Your task to perform on an android device: Do I have any events today? Image 0: 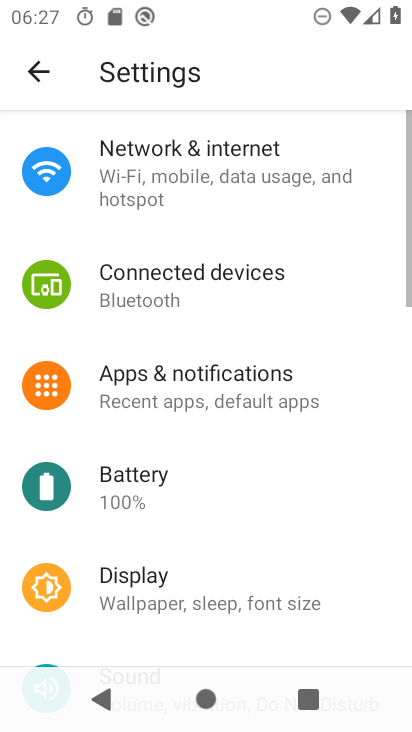
Step 0: press home button
Your task to perform on an android device: Do I have any events today? Image 1: 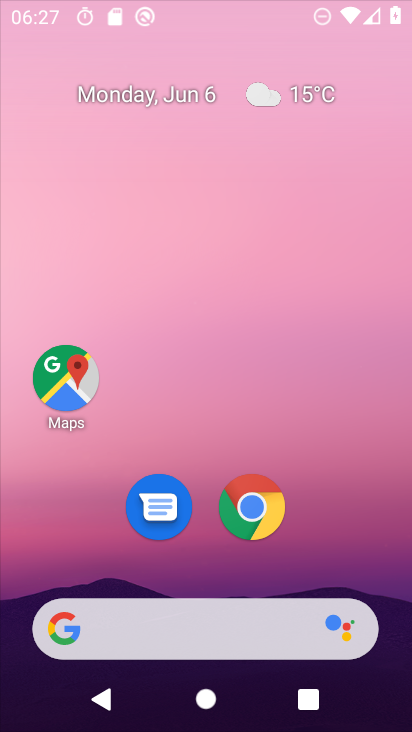
Step 1: drag from (178, 549) to (188, 175)
Your task to perform on an android device: Do I have any events today? Image 2: 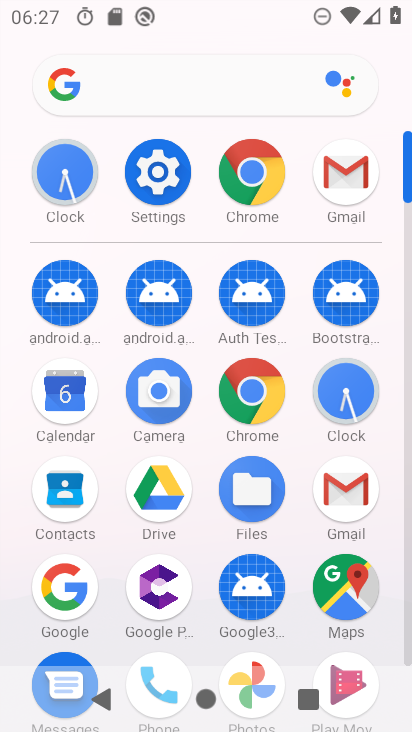
Step 2: click (63, 422)
Your task to perform on an android device: Do I have any events today? Image 3: 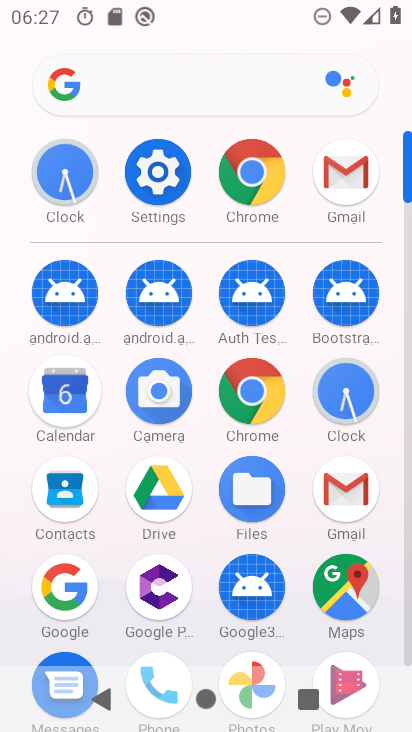
Step 3: click (65, 403)
Your task to perform on an android device: Do I have any events today? Image 4: 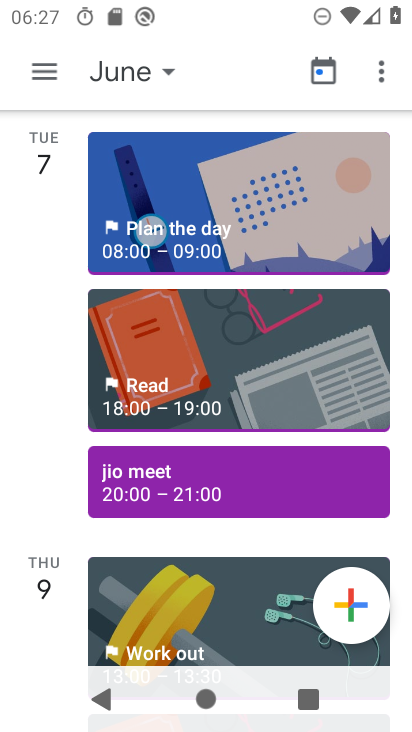
Step 4: task complete